Your task to perform on an android device: find snoozed emails in the gmail app Image 0: 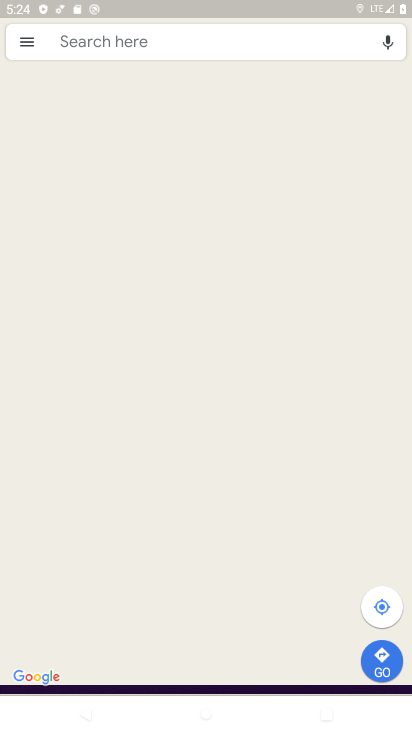
Step 0: click (255, 140)
Your task to perform on an android device: find snoozed emails in the gmail app Image 1: 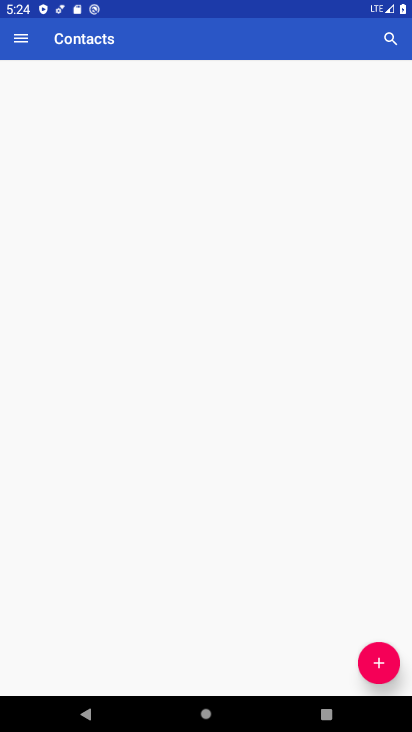
Step 1: drag from (205, 668) to (237, 222)
Your task to perform on an android device: find snoozed emails in the gmail app Image 2: 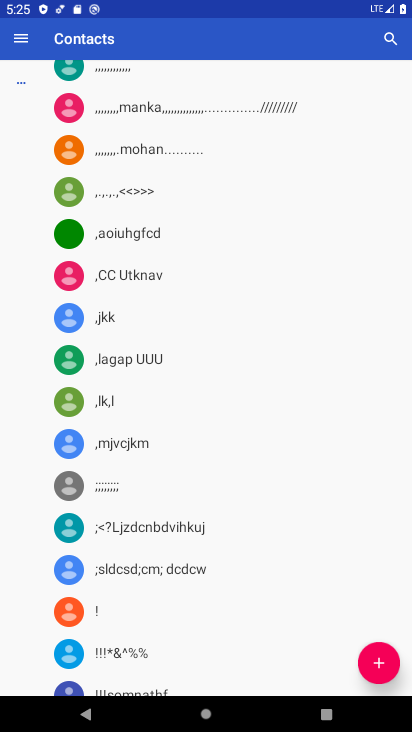
Step 2: press home button
Your task to perform on an android device: find snoozed emails in the gmail app Image 3: 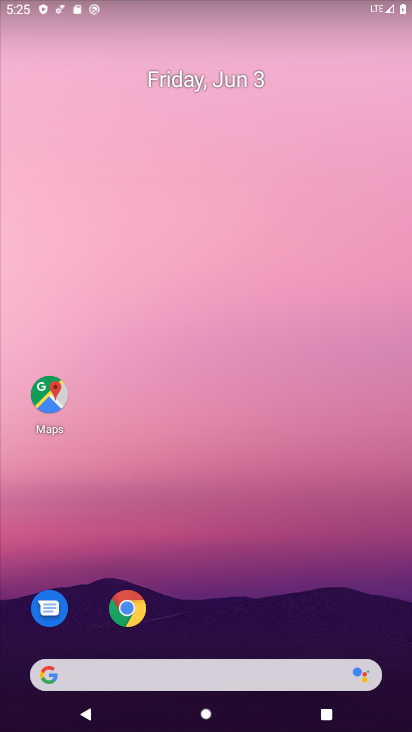
Step 3: drag from (253, 582) to (267, 7)
Your task to perform on an android device: find snoozed emails in the gmail app Image 4: 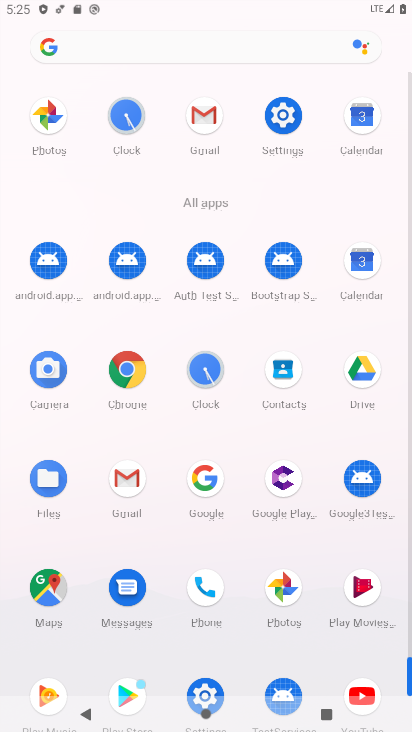
Step 4: click (198, 122)
Your task to perform on an android device: find snoozed emails in the gmail app Image 5: 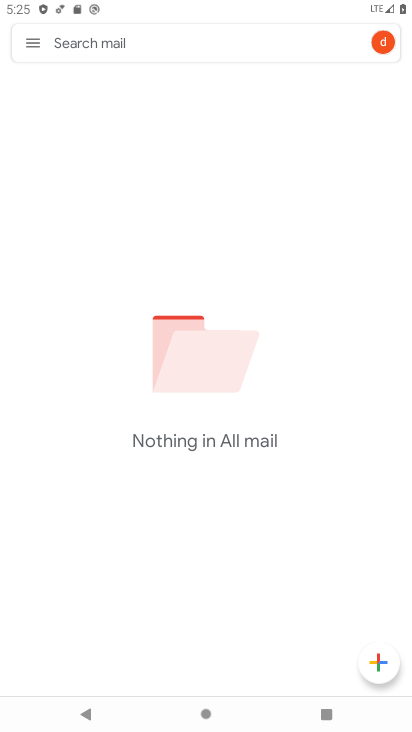
Step 5: click (36, 32)
Your task to perform on an android device: find snoozed emails in the gmail app Image 6: 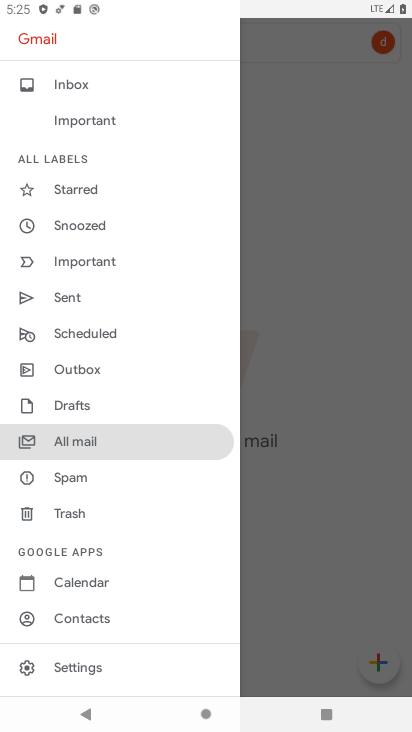
Step 6: click (86, 214)
Your task to perform on an android device: find snoozed emails in the gmail app Image 7: 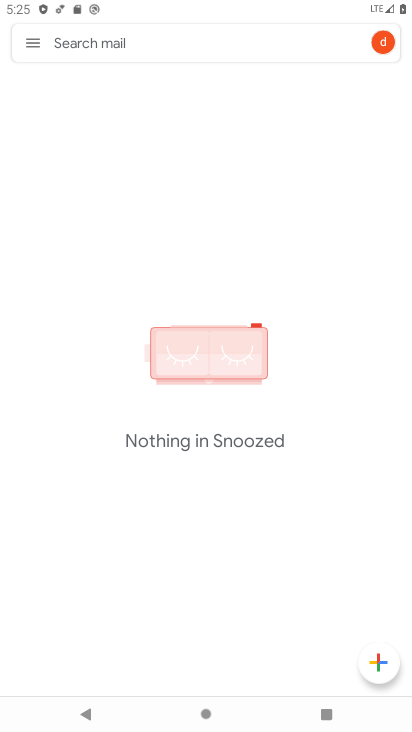
Step 7: task complete